Your task to perform on an android device: snooze an email in the gmail app Image 0: 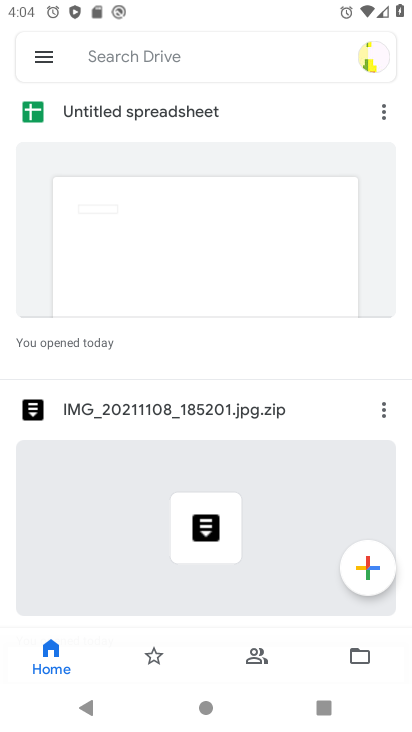
Step 0: press home button
Your task to perform on an android device: snooze an email in the gmail app Image 1: 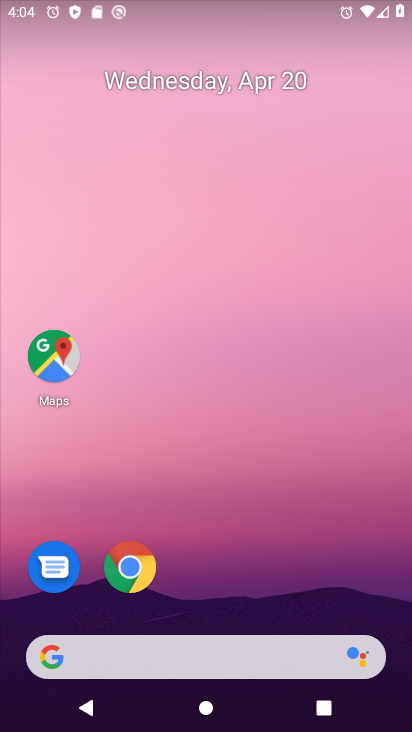
Step 1: drag from (307, 565) to (295, 197)
Your task to perform on an android device: snooze an email in the gmail app Image 2: 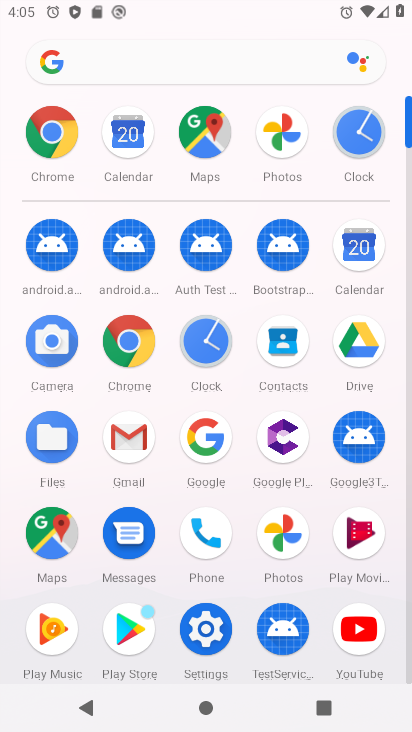
Step 2: click (143, 425)
Your task to perform on an android device: snooze an email in the gmail app Image 3: 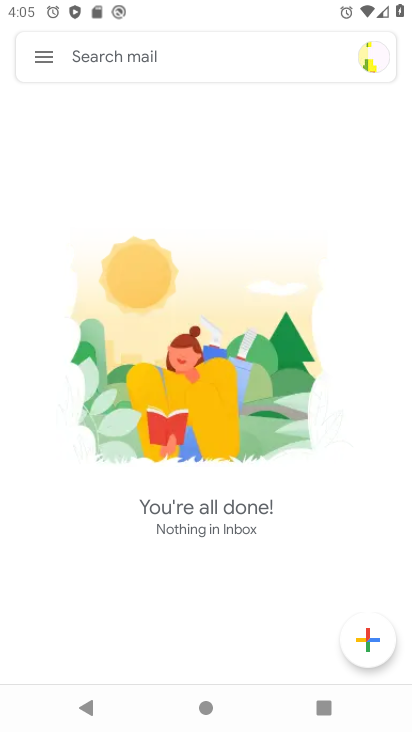
Step 3: click (44, 55)
Your task to perform on an android device: snooze an email in the gmail app Image 4: 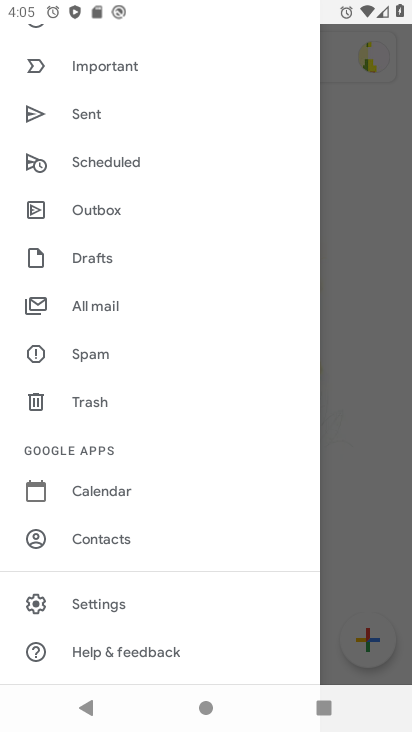
Step 4: click (143, 308)
Your task to perform on an android device: snooze an email in the gmail app Image 5: 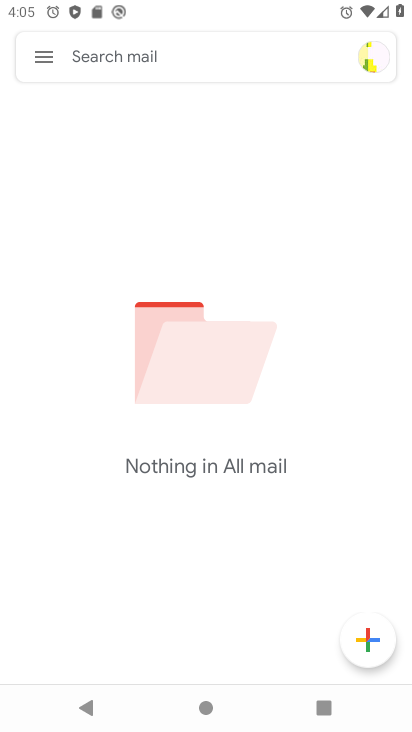
Step 5: task complete